Your task to perform on an android device: Search for vegetarian restaurants on Maps Image 0: 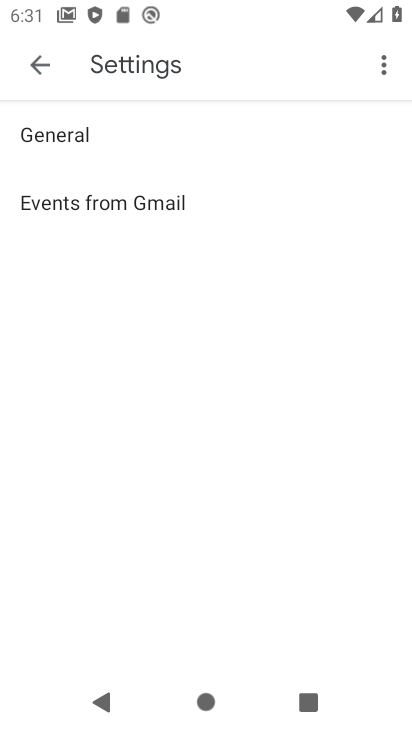
Step 0: press home button
Your task to perform on an android device: Search for vegetarian restaurants on Maps Image 1: 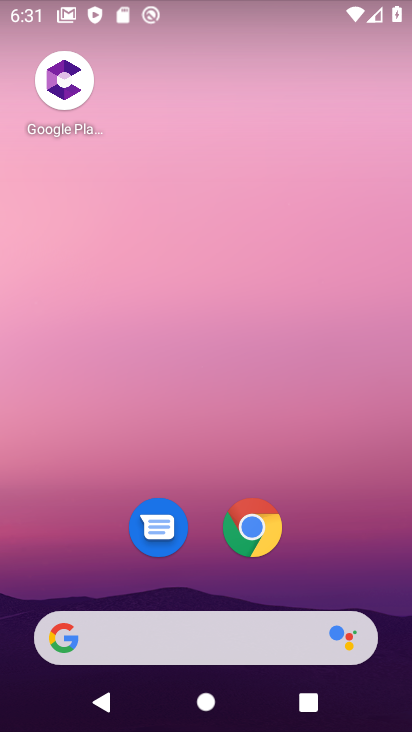
Step 1: drag from (315, 508) to (168, 11)
Your task to perform on an android device: Search for vegetarian restaurants on Maps Image 2: 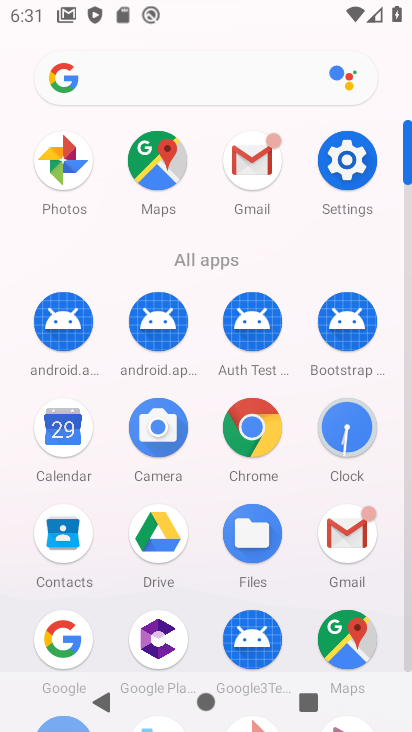
Step 2: click (357, 642)
Your task to perform on an android device: Search for vegetarian restaurants on Maps Image 3: 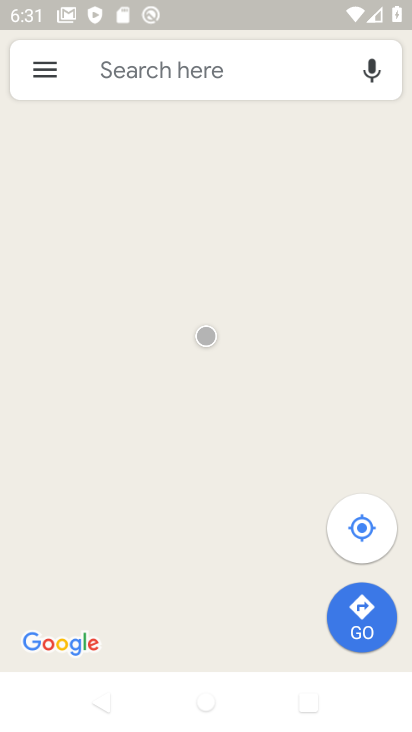
Step 3: click (142, 76)
Your task to perform on an android device: Search for vegetarian restaurants on Maps Image 4: 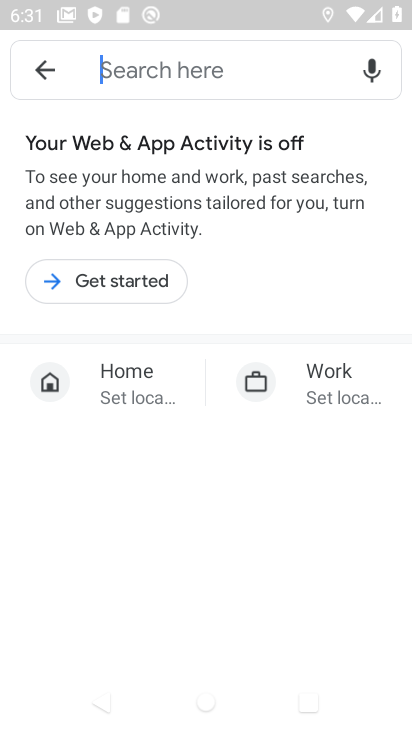
Step 4: click (130, 270)
Your task to perform on an android device: Search for vegetarian restaurants on Maps Image 5: 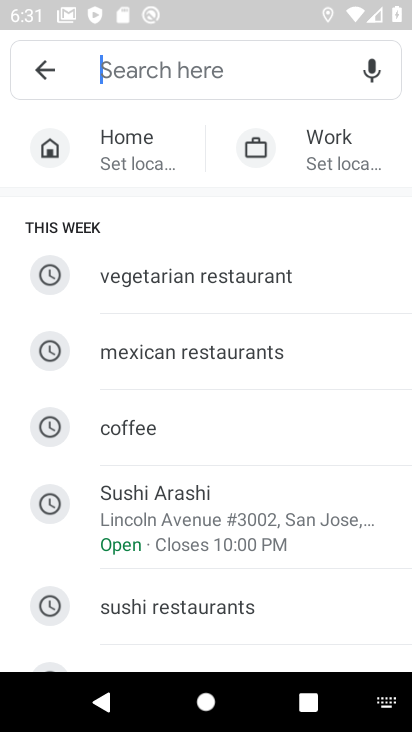
Step 5: click (129, 277)
Your task to perform on an android device: Search for vegetarian restaurants on Maps Image 6: 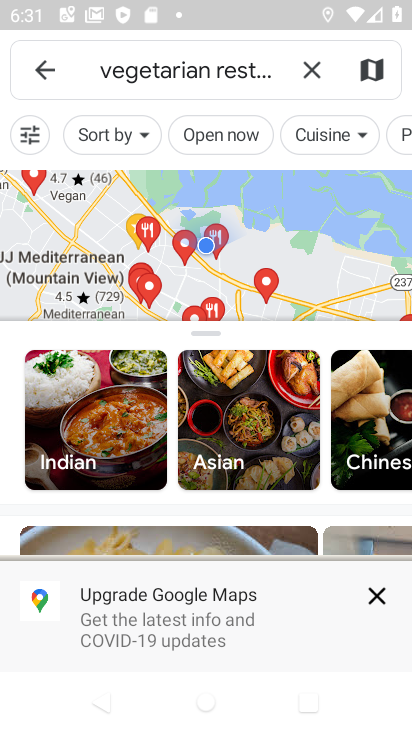
Step 6: task complete